Your task to perform on an android device: Go to location settings Image 0: 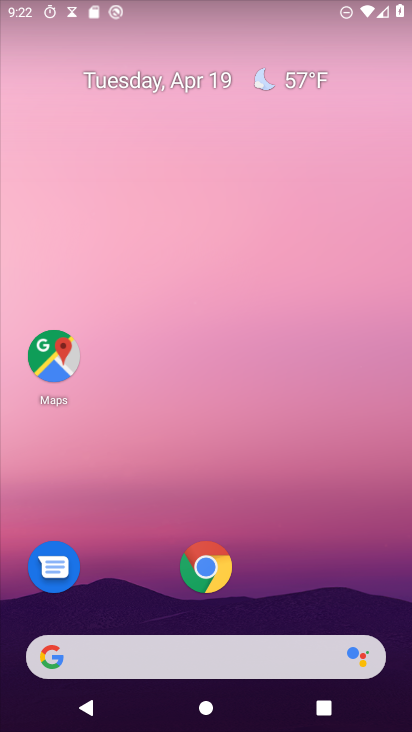
Step 0: drag from (275, 556) to (219, 75)
Your task to perform on an android device: Go to location settings Image 1: 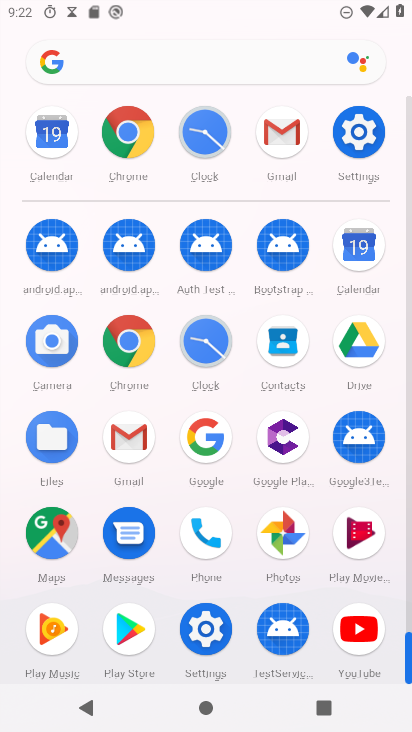
Step 1: click (191, 635)
Your task to perform on an android device: Go to location settings Image 2: 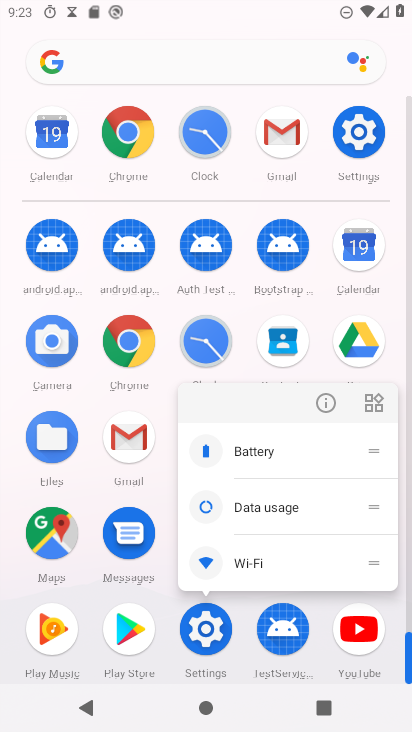
Step 2: click (219, 621)
Your task to perform on an android device: Go to location settings Image 3: 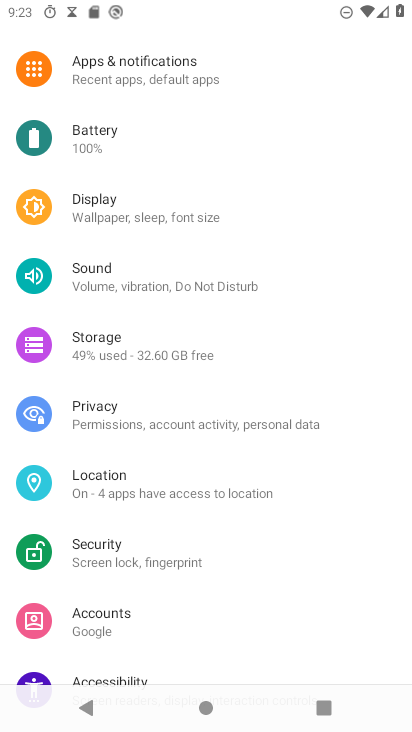
Step 3: click (119, 476)
Your task to perform on an android device: Go to location settings Image 4: 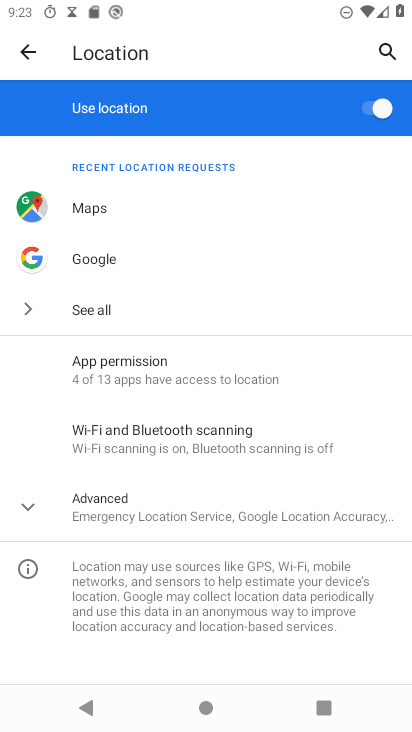
Step 4: task complete